Your task to perform on an android device: Open the contacts Image 0: 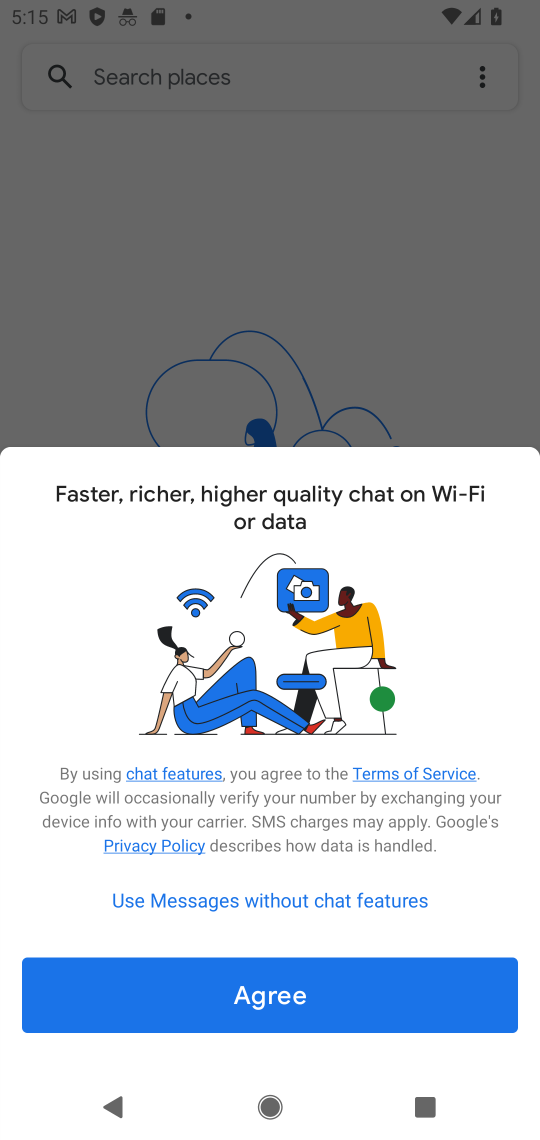
Step 0: press home button
Your task to perform on an android device: Open the contacts Image 1: 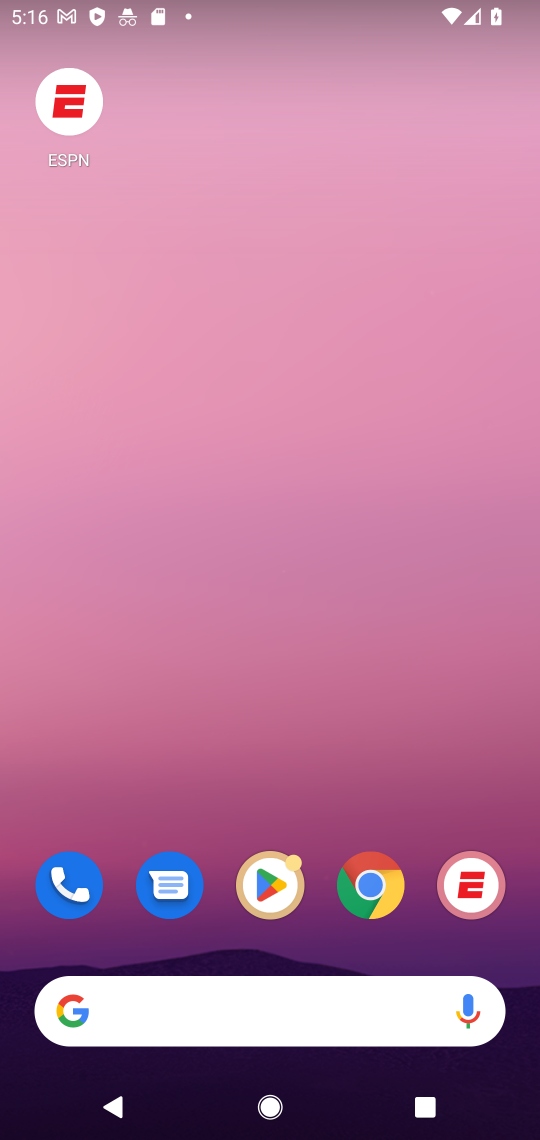
Step 1: drag from (252, 785) to (365, 54)
Your task to perform on an android device: Open the contacts Image 2: 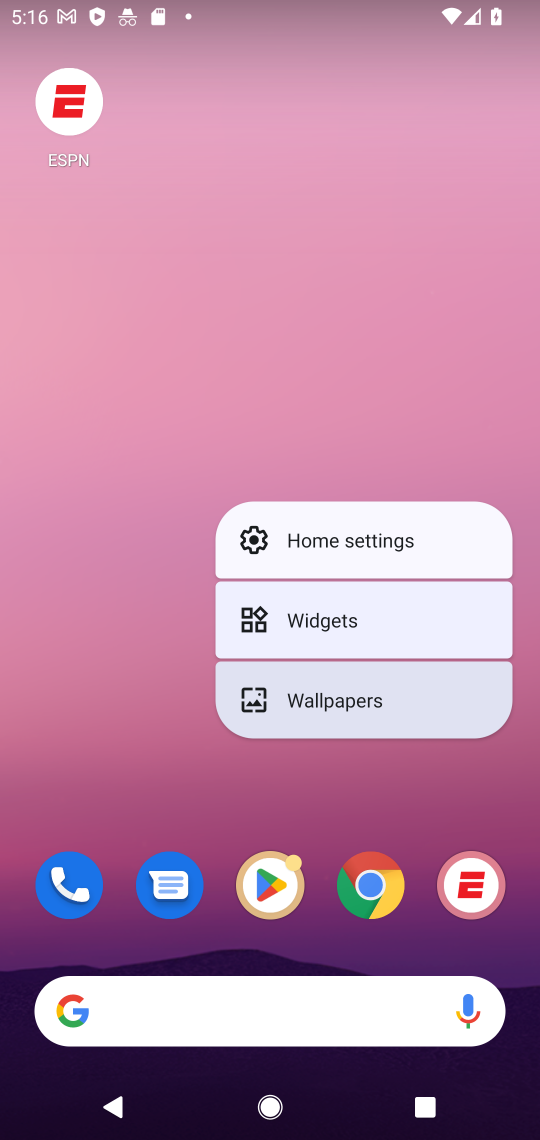
Step 2: click (148, 520)
Your task to perform on an android device: Open the contacts Image 3: 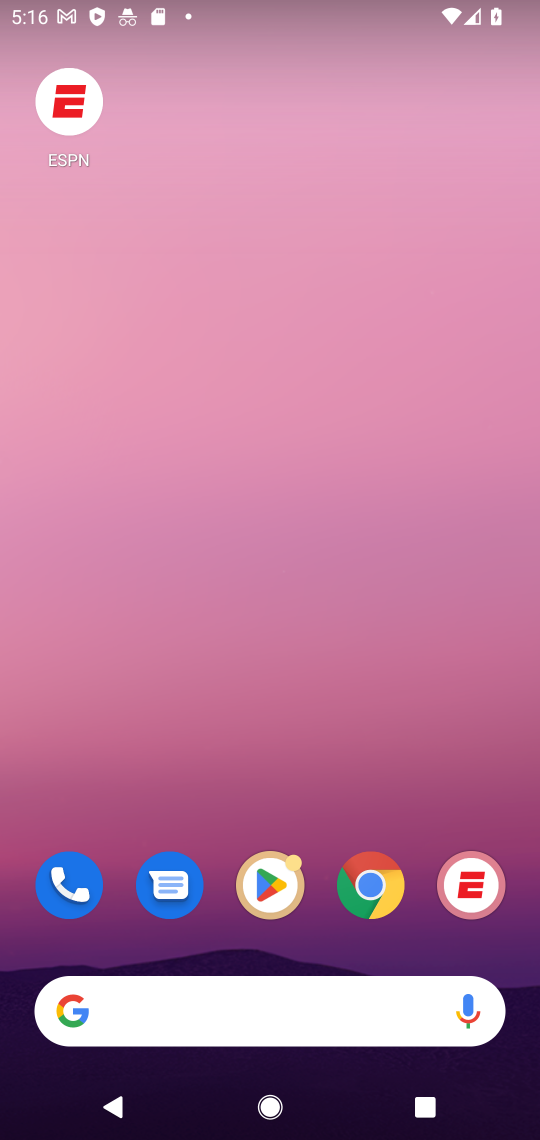
Step 3: drag from (283, 745) to (293, 37)
Your task to perform on an android device: Open the contacts Image 4: 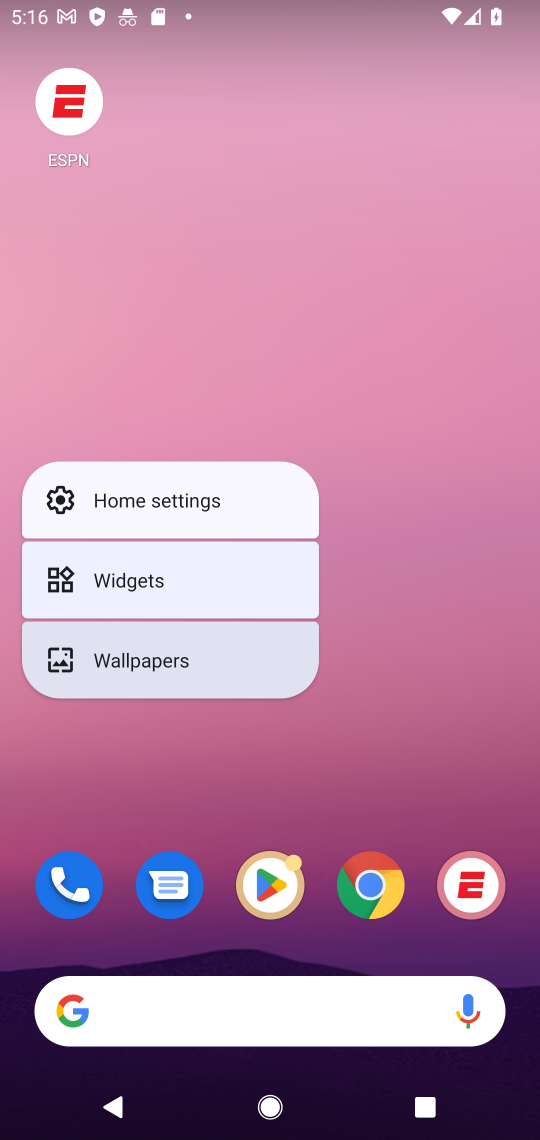
Step 4: click (318, 929)
Your task to perform on an android device: Open the contacts Image 5: 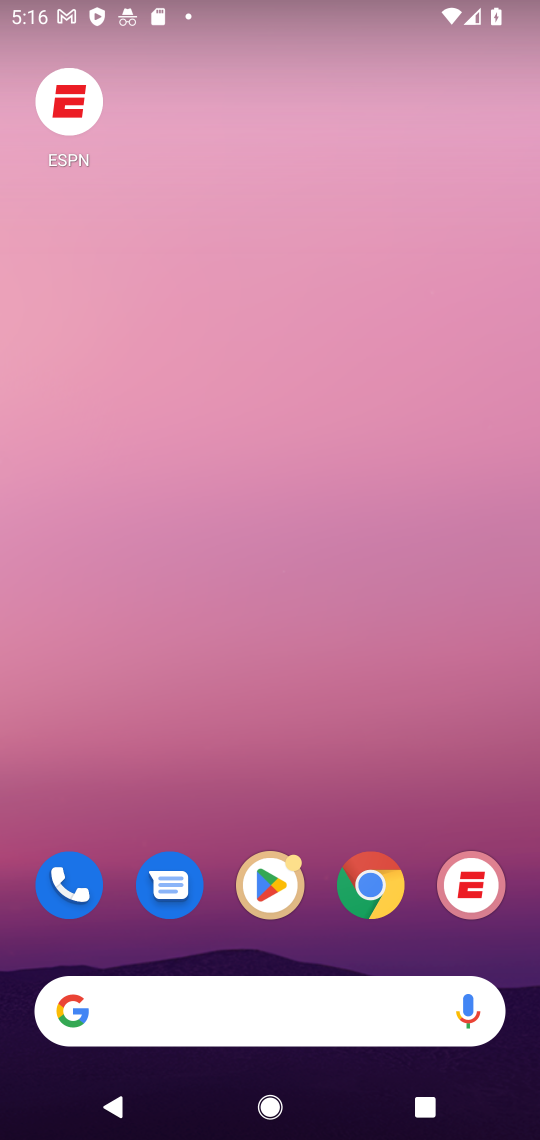
Step 5: drag from (318, 929) to (338, 61)
Your task to perform on an android device: Open the contacts Image 6: 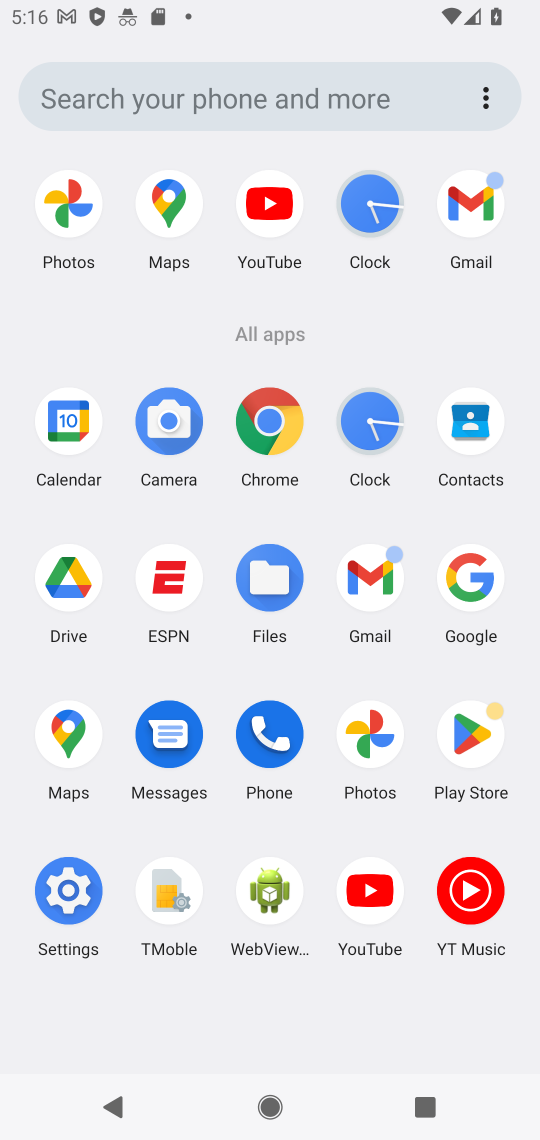
Step 6: click (472, 424)
Your task to perform on an android device: Open the contacts Image 7: 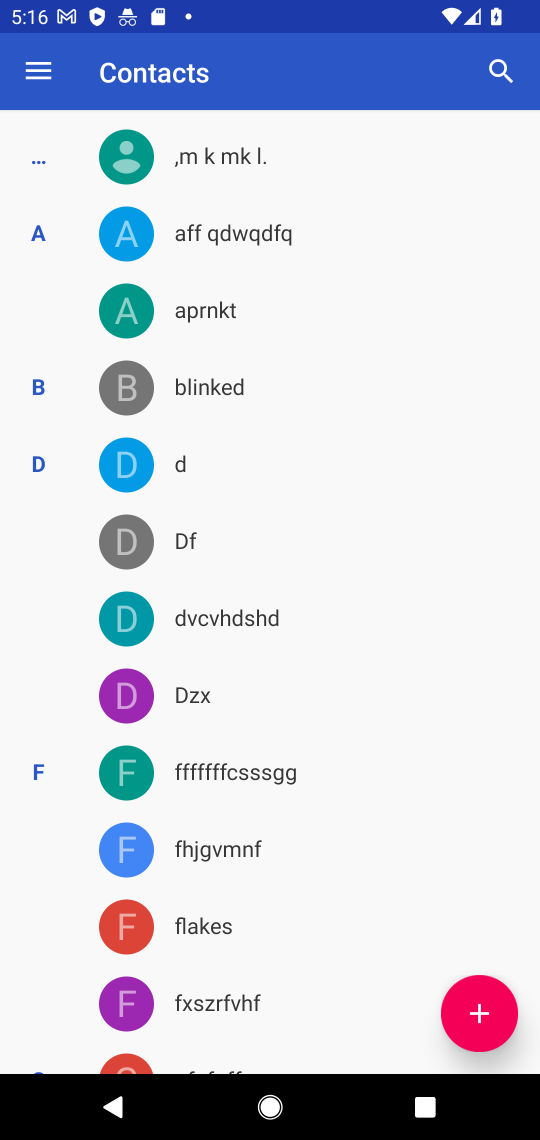
Step 7: task complete